Your task to perform on an android device: Open Google Maps Image 0: 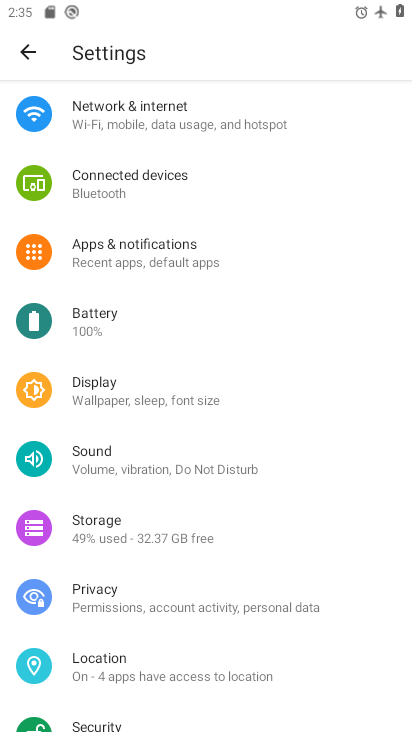
Step 0: press home button
Your task to perform on an android device: Open Google Maps Image 1: 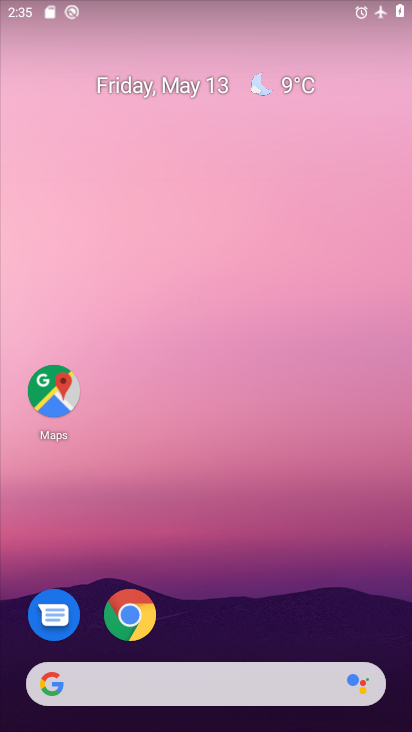
Step 1: click (61, 399)
Your task to perform on an android device: Open Google Maps Image 2: 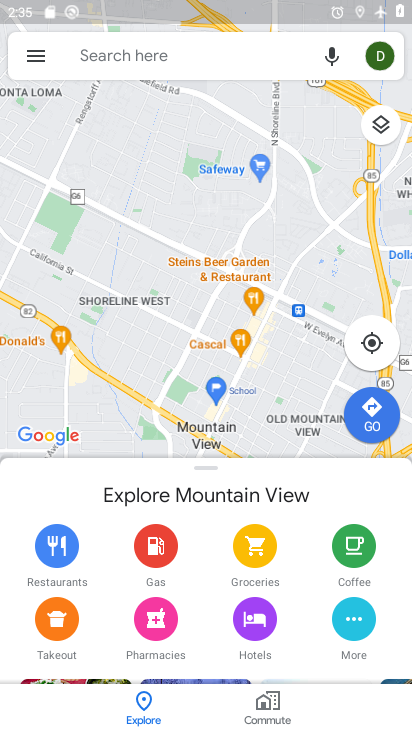
Step 2: task complete